Your task to perform on an android device: Open location settings Image 0: 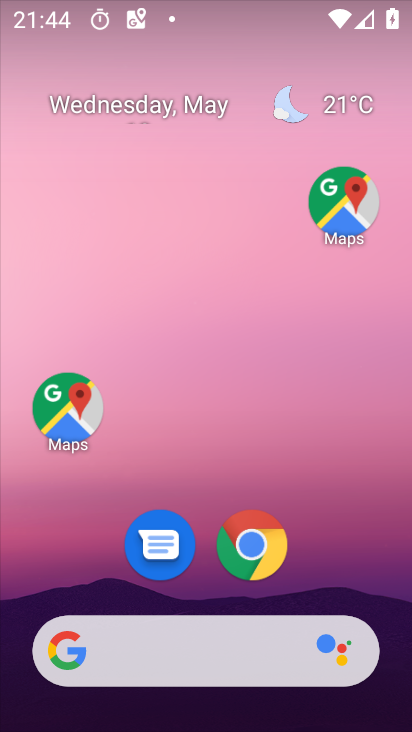
Step 0: drag from (305, 590) to (208, 64)
Your task to perform on an android device: Open location settings Image 1: 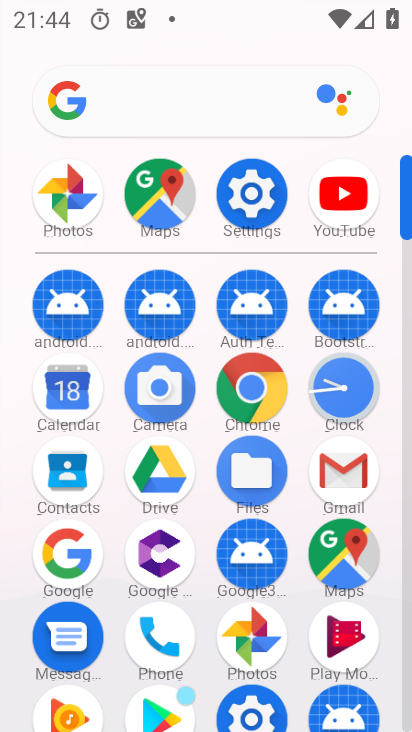
Step 1: click (245, 191)
Your task to perform on an android device: Open location settings Image 2: 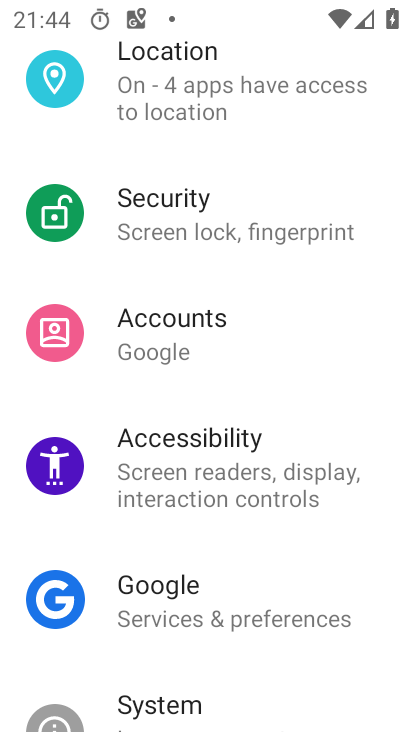
Step 2: click (245, 87)
Your task to perform on an android device: Open location settings Image 3: 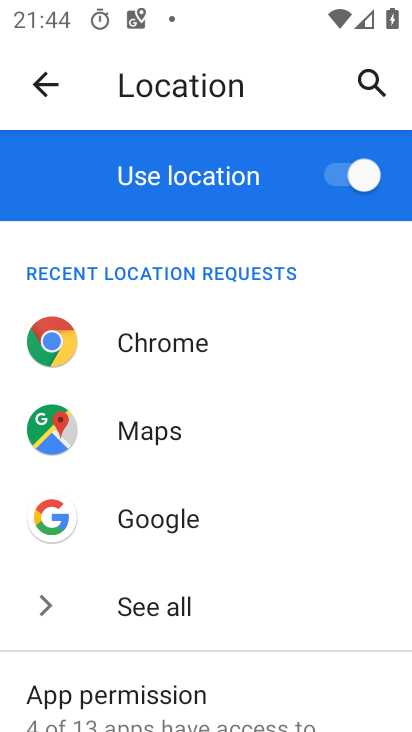
Step 3: task complete